Your task to perform on an android device: Open sound settings Image 0: 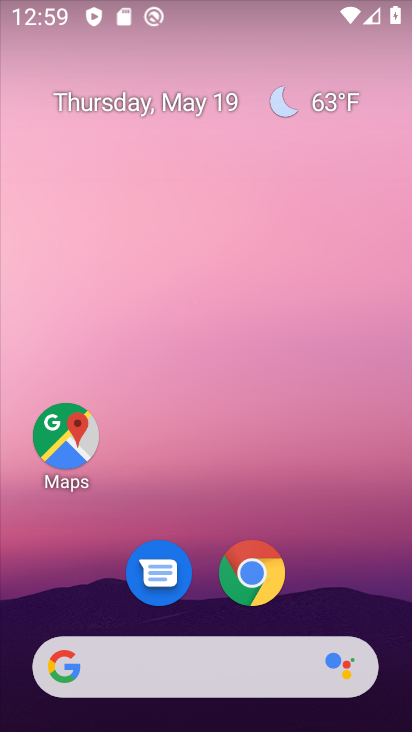
Step 0: press home button
Your task to perform on an android device: Open sound settings Image 1: 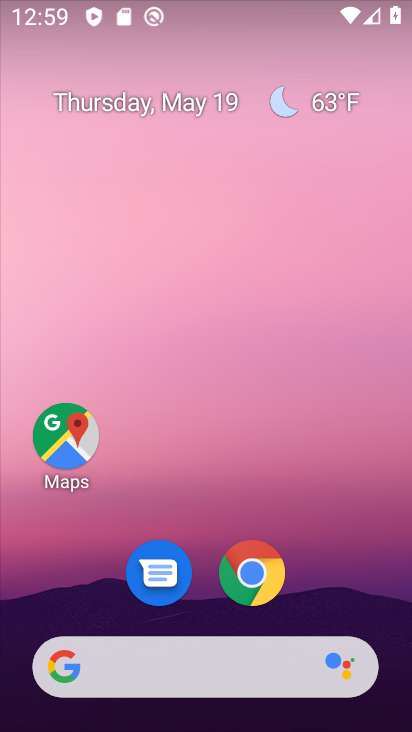
Step 1: click (256, 559)
Your task to perform on an android device: Open sound settings Image 2: 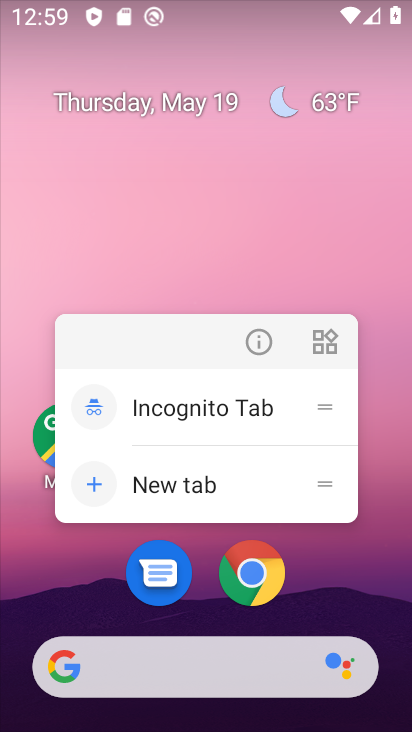
Step 2: click (344, 569)
Your task to perform on an android device: Open sound settings Image 3: 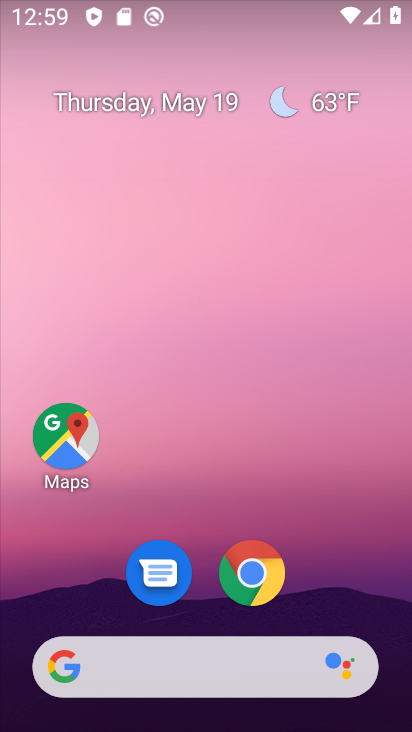
Step 3: click (262, 564)
Your task to perform on an android device: Open sound settings Image 4: 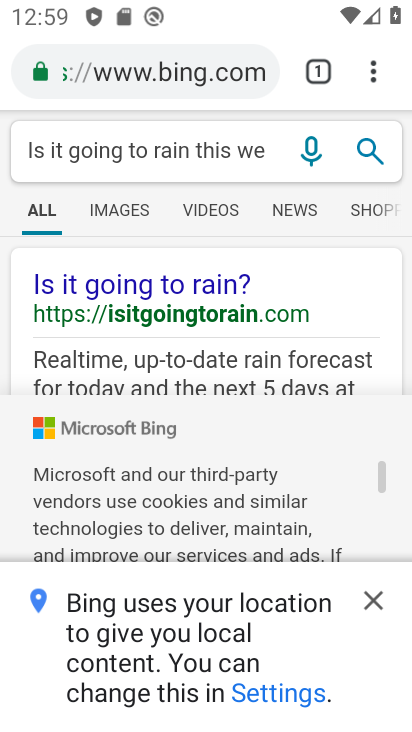
Step 4: press home button
Your task to perform on an android device: Open sound settings Image 5: 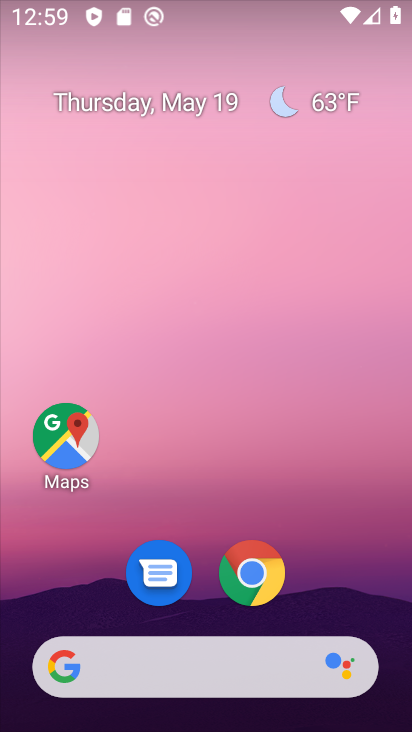
Step 5: drag from (298, 469) to (297, 123)
Your task to perform on an android device: Open sound settings Image 6: 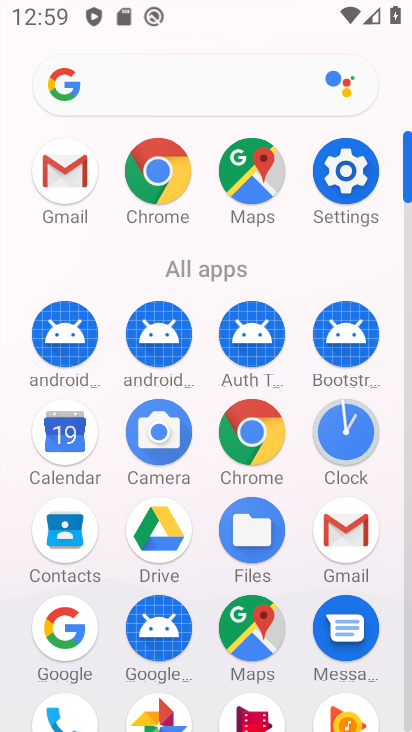
Step 6: click (346, 163)
Your task to perform on an android device: Open sound settings Image 7: 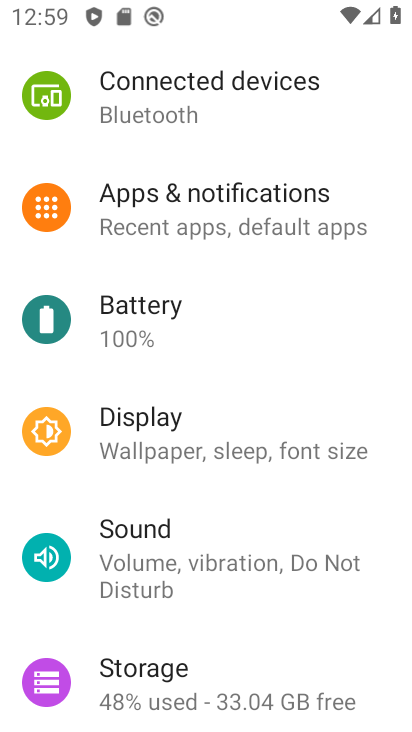
Step 7: click (169, 547)
Your task to perform on an android device: Open sound settings Image 8: 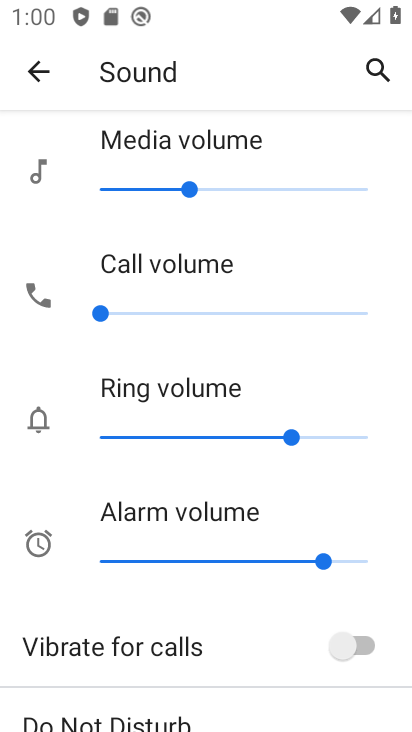
Step 8: task complete